Your task to perform on an android device: Open accessibility settings Image 0: 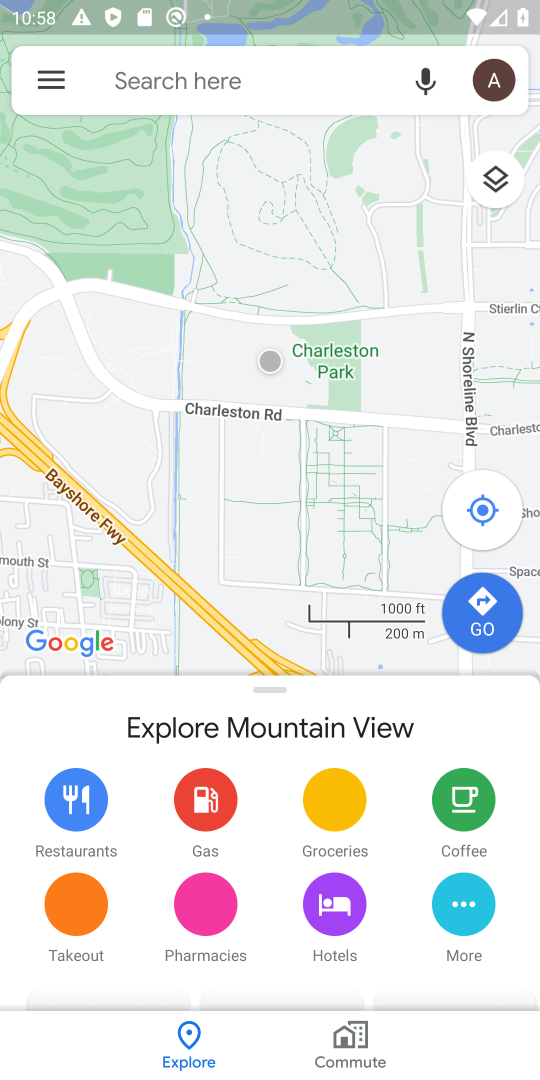
Step 0: press home button
Your task to perform on an android device: Open accessibility settings Image 1: 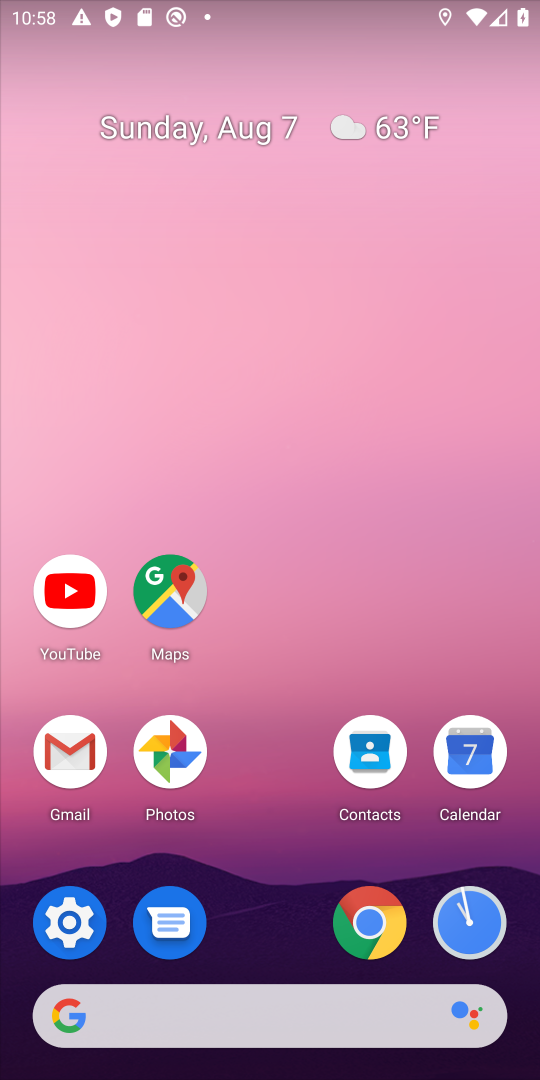
Step 1: click (70, 920)
Your task to perform on an android device: Open accessibility settings Image 2: 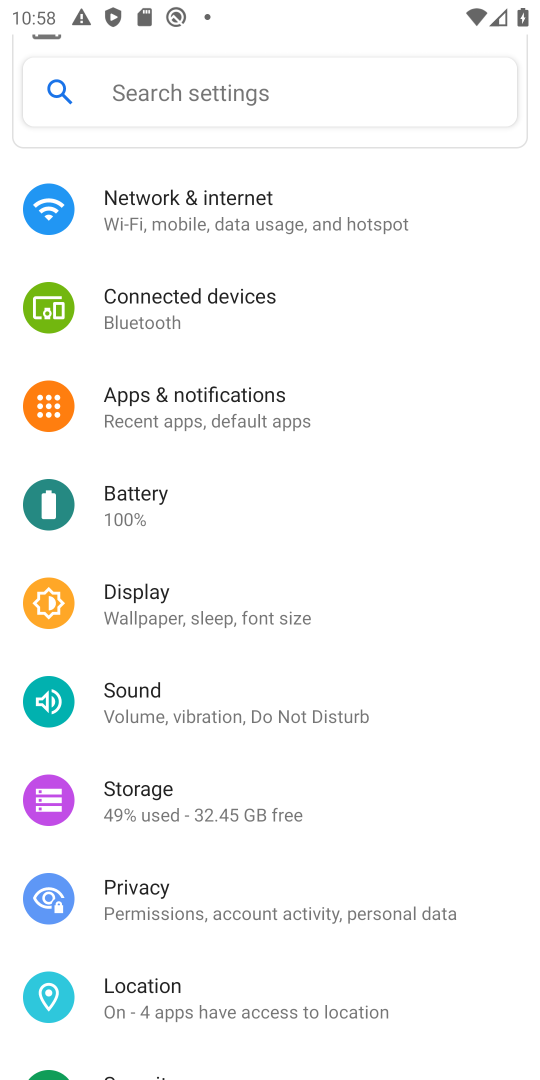
Step 2: drag from (351, 942) to (363, 483)
Your task to perform on an android device: Open accessibility settings Image 3: 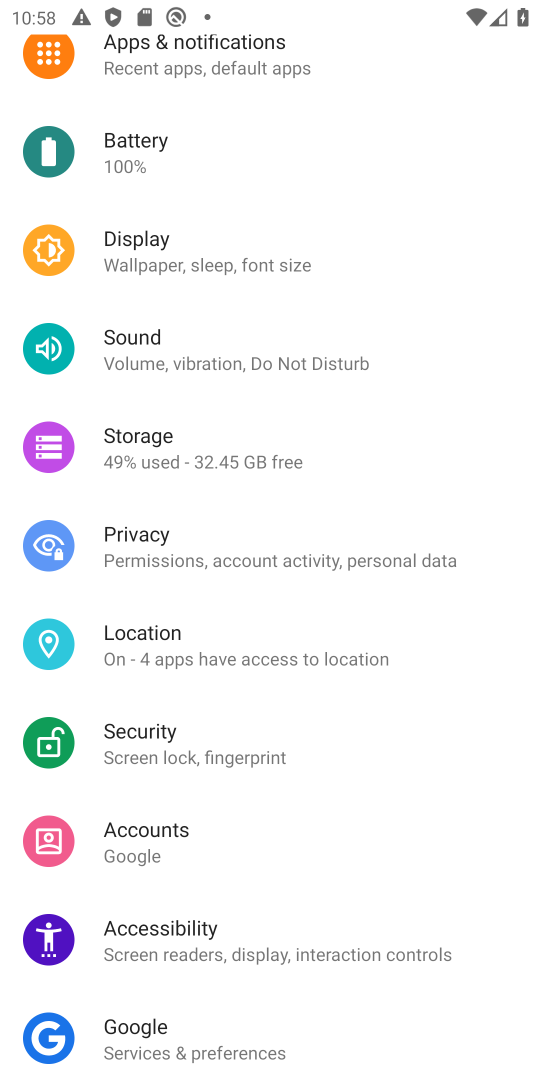
Step 3: click (163, 922)
Your task to perform on an android device: Open accessibility settings Image 4: 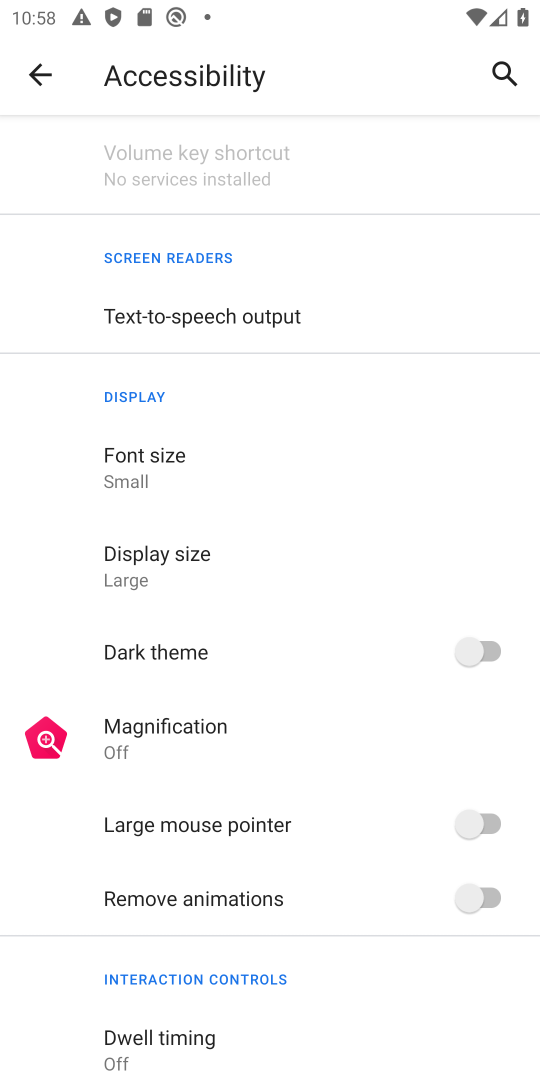
Step 4: task complete